Your task to perform on an android device: Search for Italian restaurants on Maps Image 0: 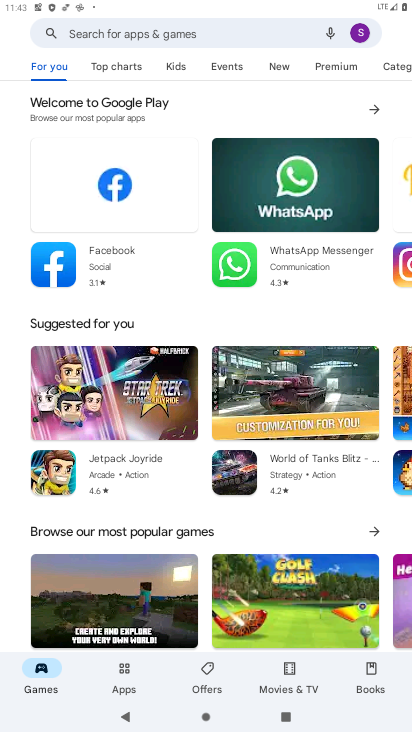
Step 0: press home button
Your task to perform on an android device: Search for Italian restaurants on Maps Image 1: 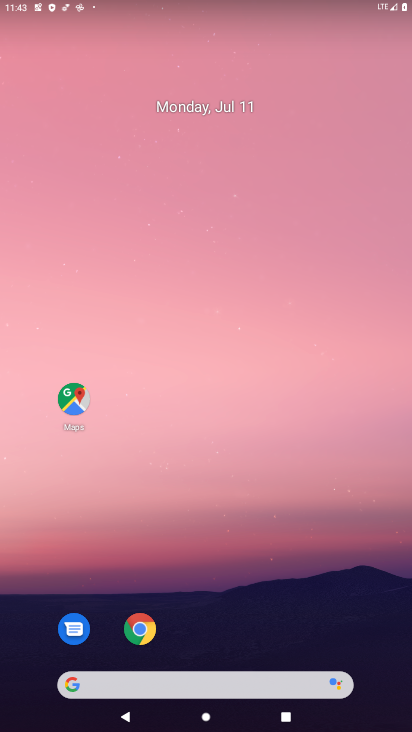
Step 1: click (74, 408)
Your task to perform on an android device: Search for Italian restaurants on Maps Image 2: 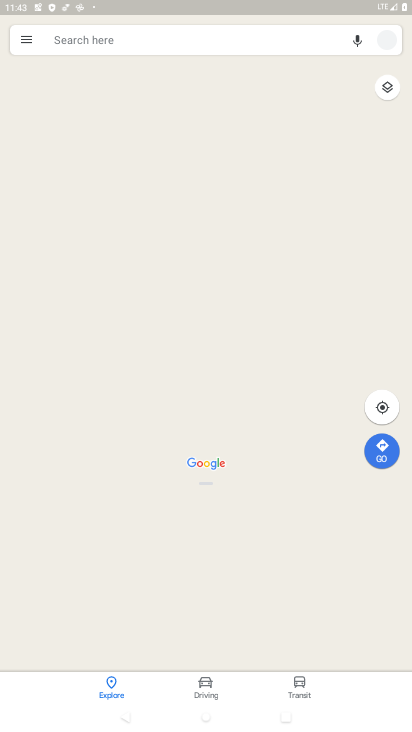
Step 2: click (213, 49)
Your task to perform on an android device: Search for Italian restaurants on Maps Image 3: 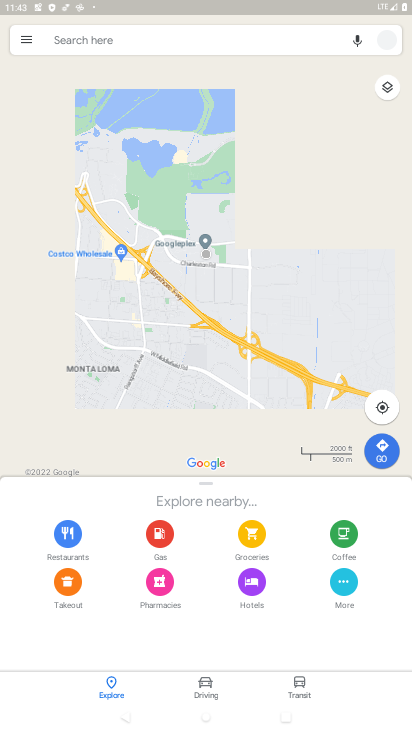
Step 3: click (206, 49)
Your task to perform on an android device: Search for Italian restaurants on Maps Image 4: 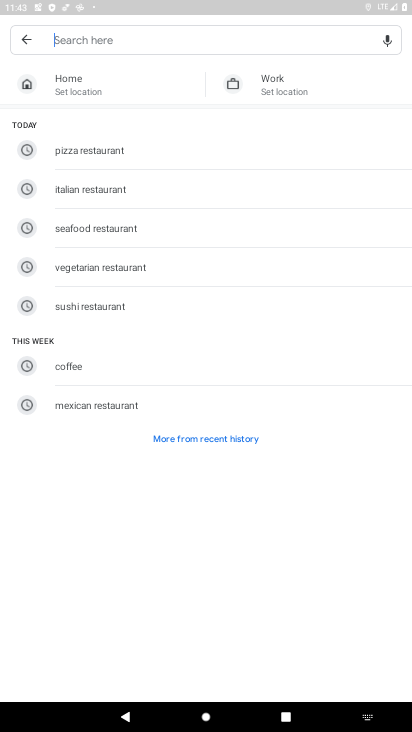
Step 4: click (151, 191)
Your task to perform on an android device: Search for Italian restaurants on Maps Image 5: 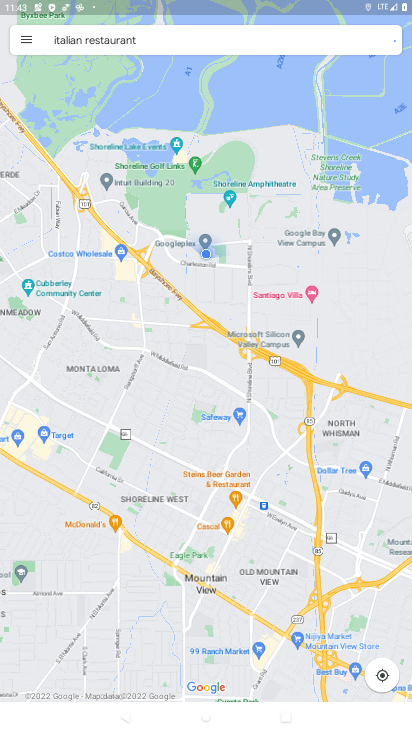
Step 5: task complete